Your task to perform on an android device: open app "Venmo" (install if not already installed) and go to login screen Image 0: 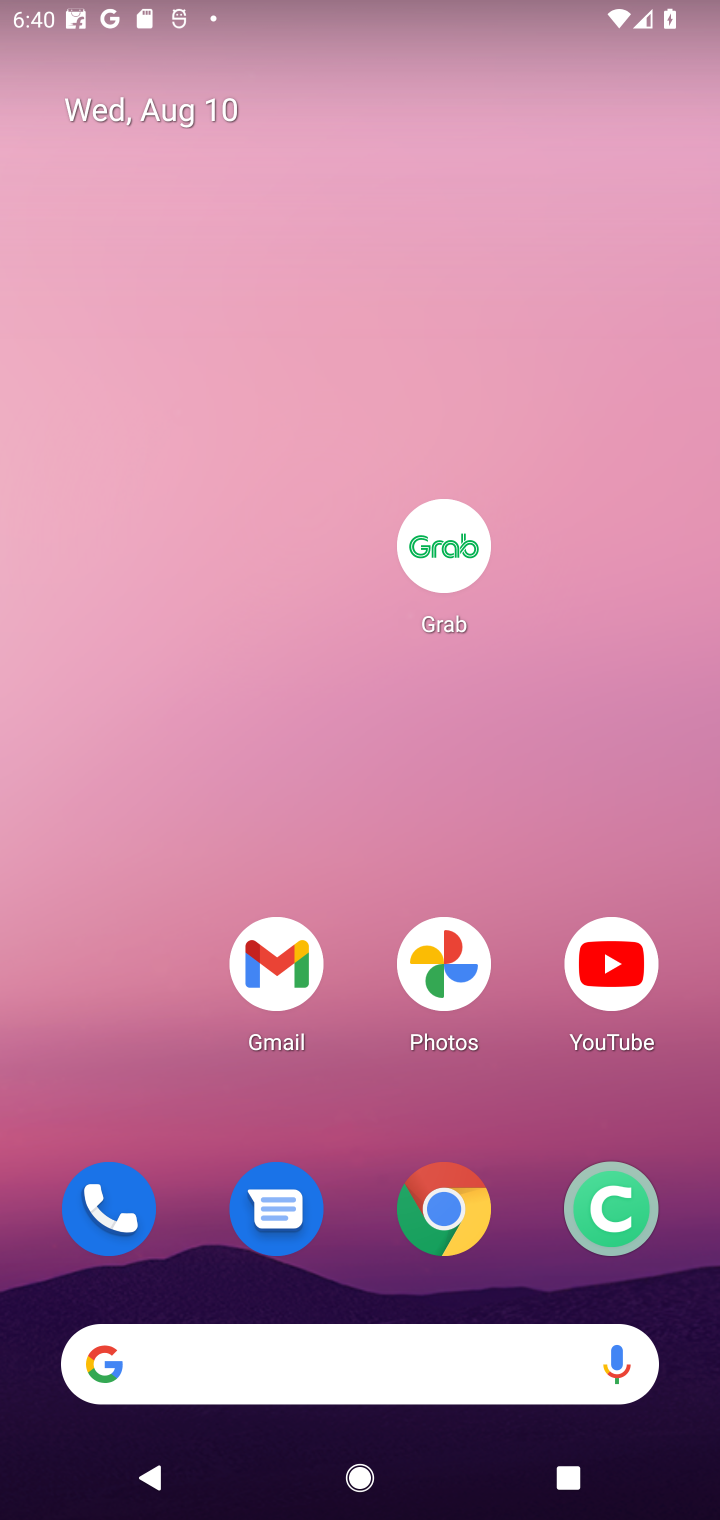
Step 0: drag from (382, 1281) to (423, 54)
Your task to perform on an android device: open app "Venmo" (install if not already installed) and go to login screen Image 1: 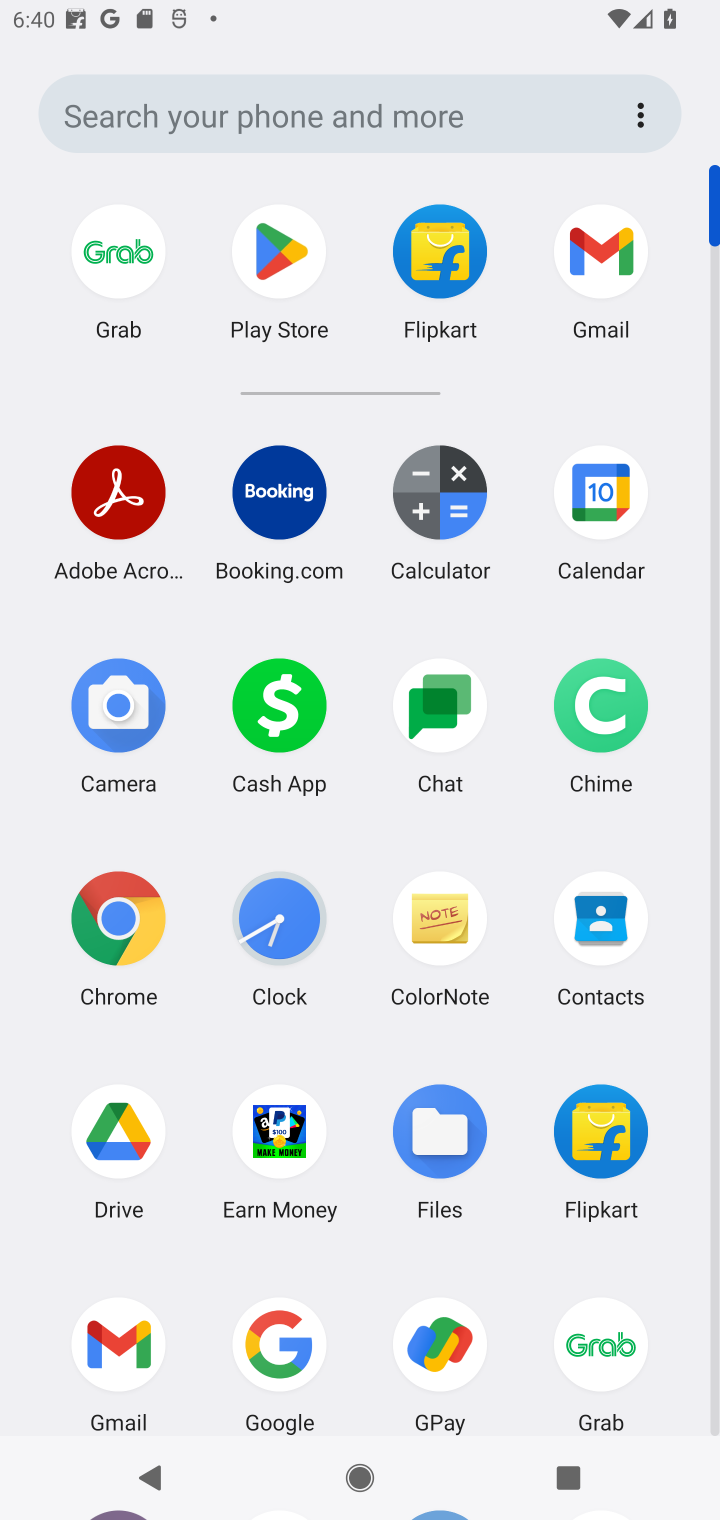
Step 1: click (282, 222)
Your task to perform on an android device: open app "Venmo" (install if not already installed) and go to login screen Image 2: 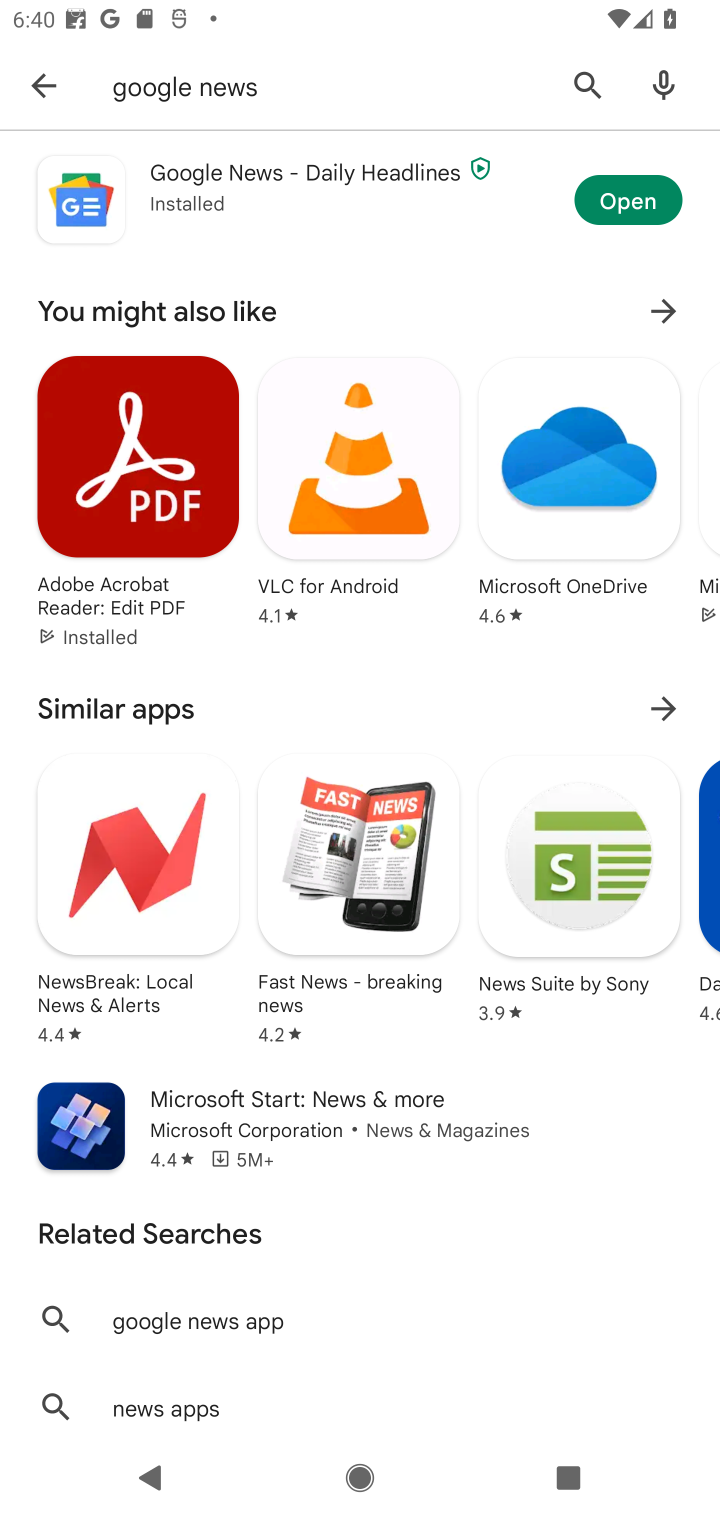
Step 2: click (586, 84)
Your task to perform on an android device: open app "Venmo" (install if not already installed) and go to login screen Image 3: 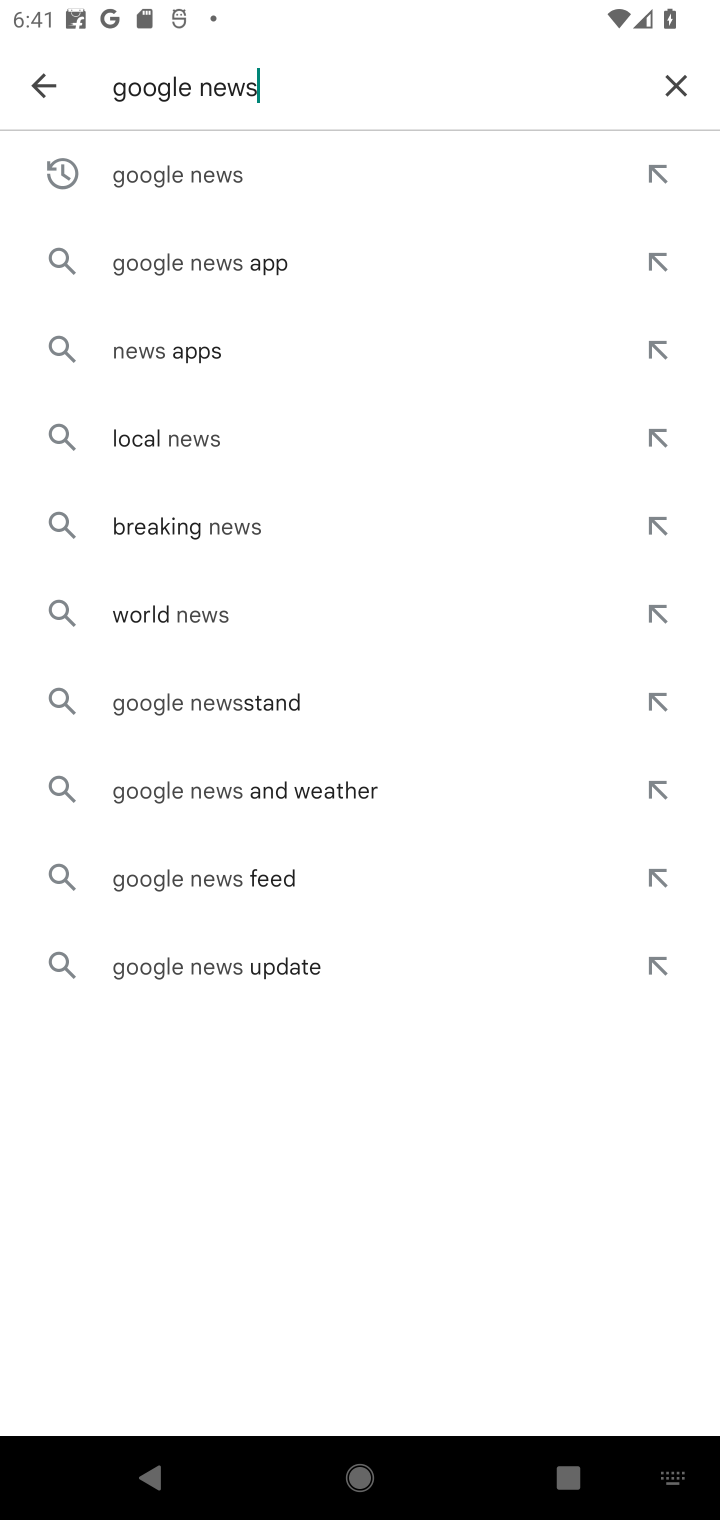
Step 3: click (643, 84)
Your task to perform on an android device: open app "Venmo" (install if not already installed) and go to login screen Image 4: 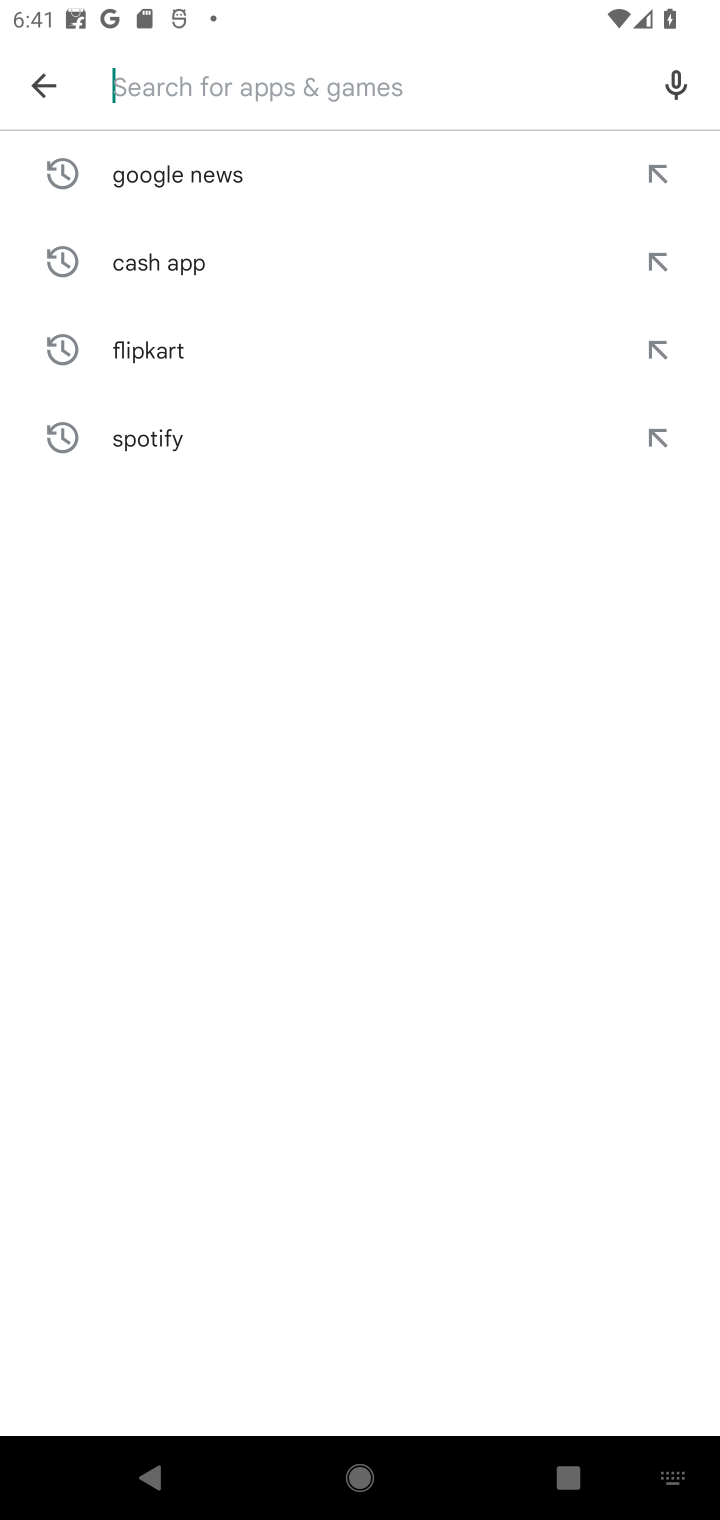
Step 4: type "venmo"
Your task to perform on an android device: open app "Venmo" (install if not already installed) and go to login screen Image 5: 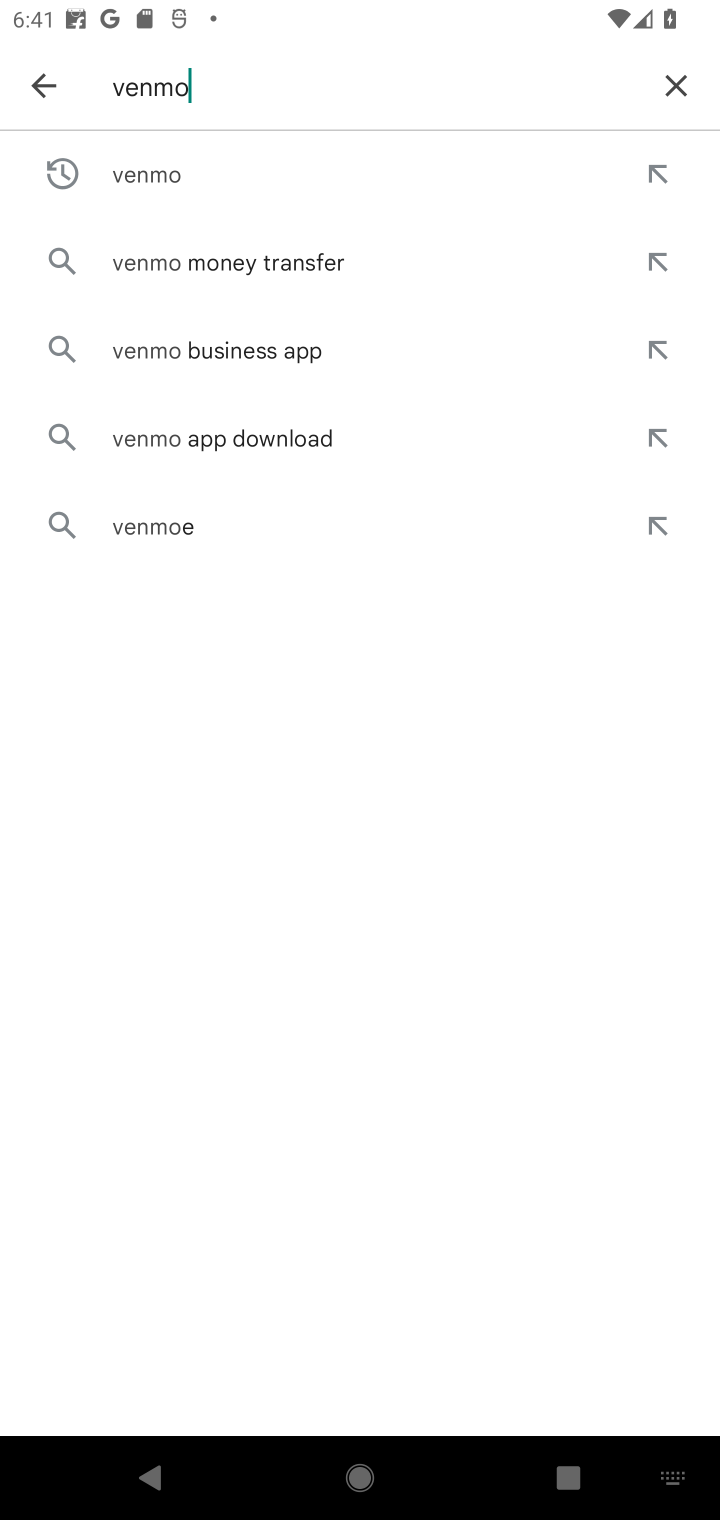
Step 5: click (152, 210)
Your task to perform on an android device: open app "Venmo" (install if not already installed) and go to login screen Image 6: 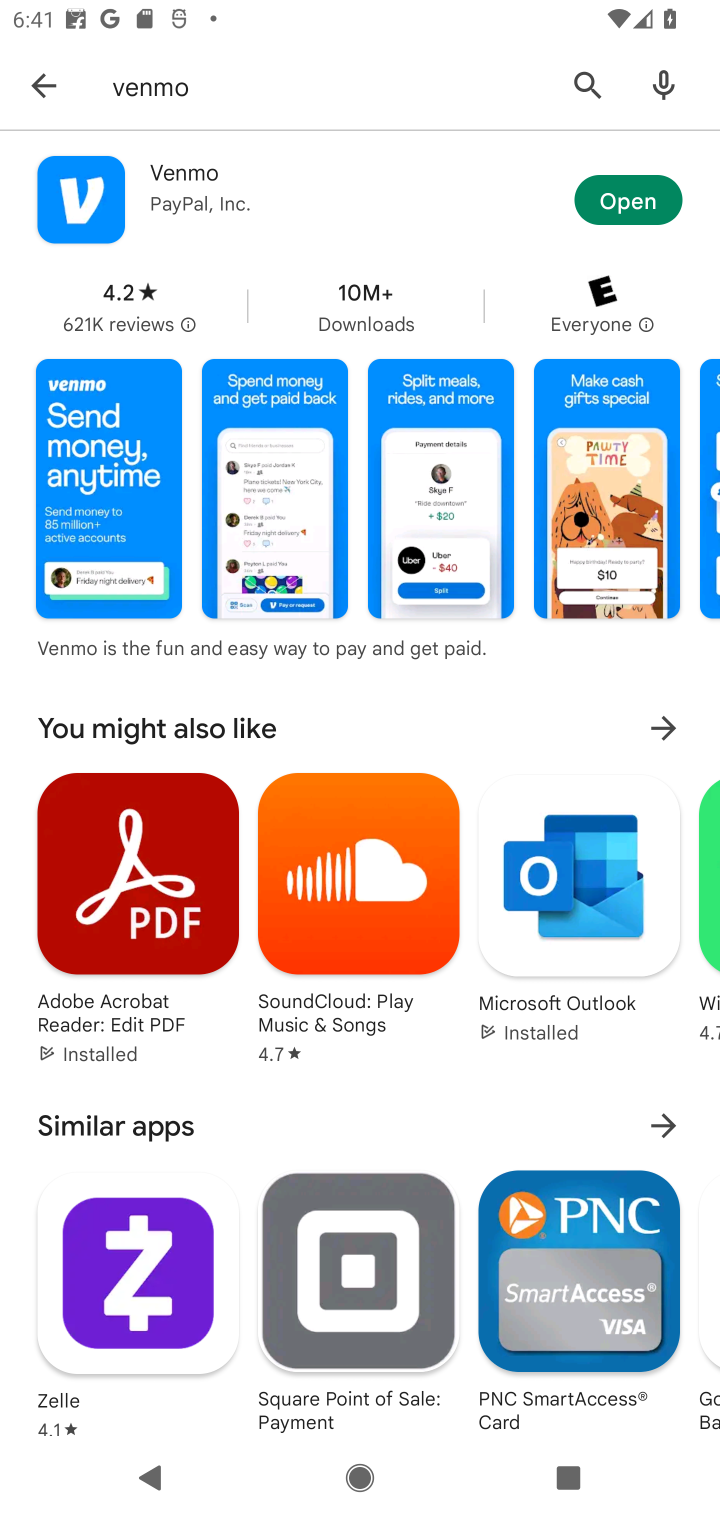
Step 6: click (631, 199)
Your task to perform on an android device: open app "Venmo" (install if not already installed) and go to login screen Image 7: 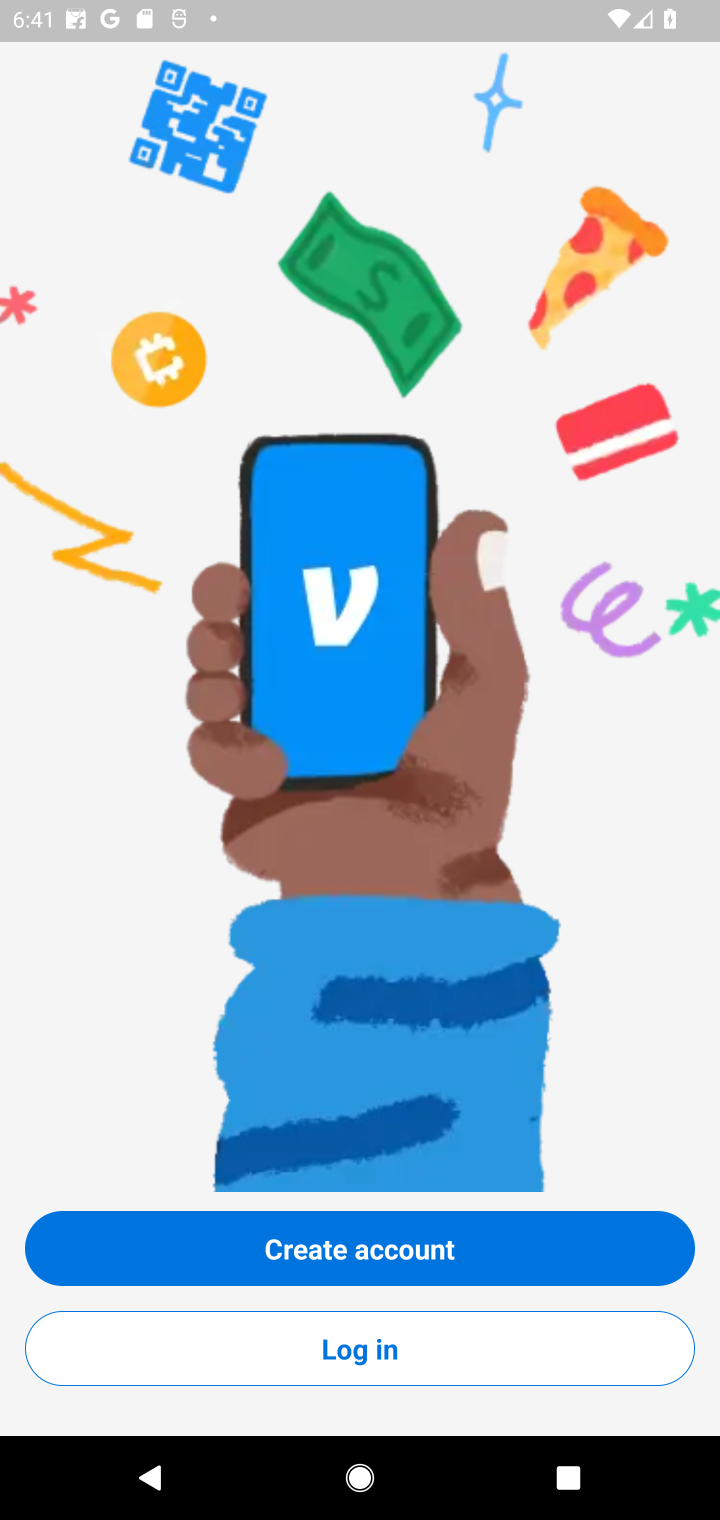
Step 7: task complete